Your task to perform on an android device: Open notification settings Image 0: 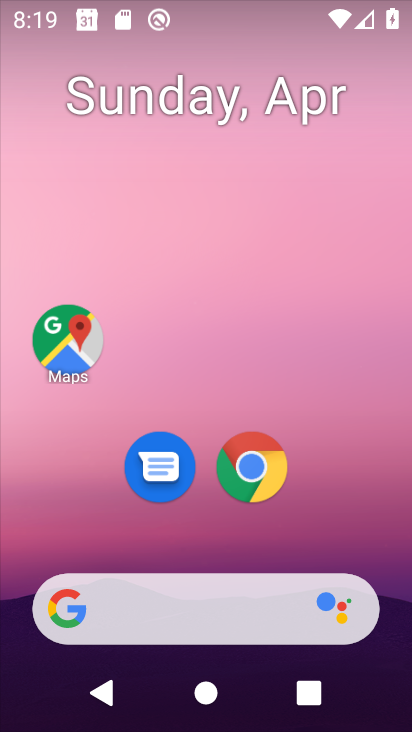
Step 0: drag from (329, 527) to (405, 209)
Your task to perform on an android device: Open notification settings Image 1: 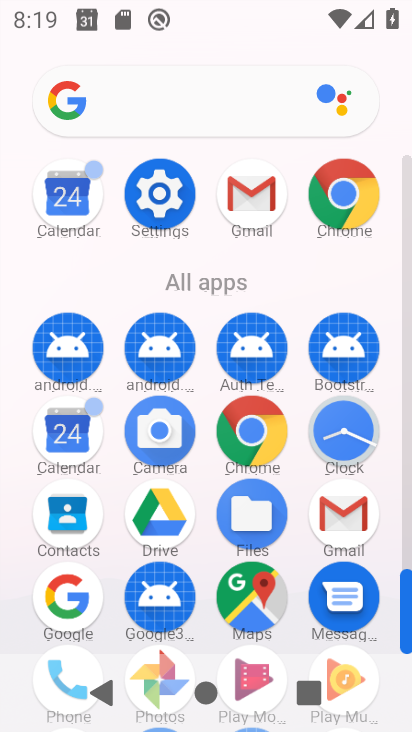
Step 1: click (167, 194)
Your task to perform on an android device: Open notification settings Image 2: 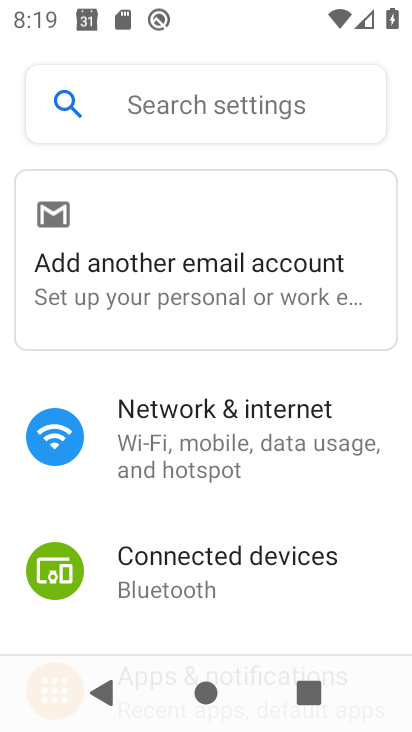
Step 2: drag from (194, 365) to (235, 265)
Your task to perform on an android device: Open notification settings Image 3: 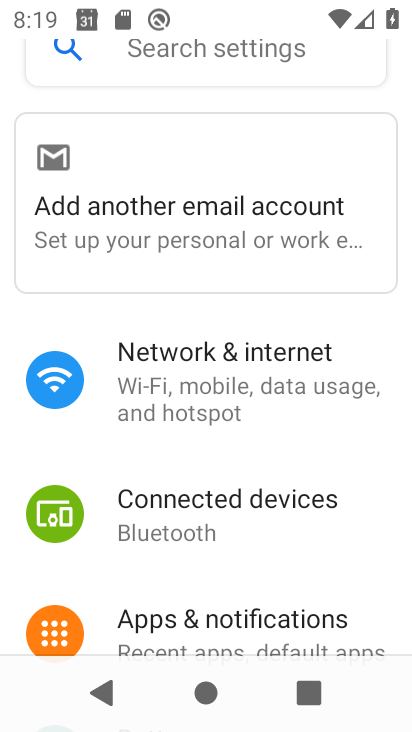
Step 3: drag from (255, 327) to (333, 176)
Your task to perform on an android device: Open notification settings Image 4: 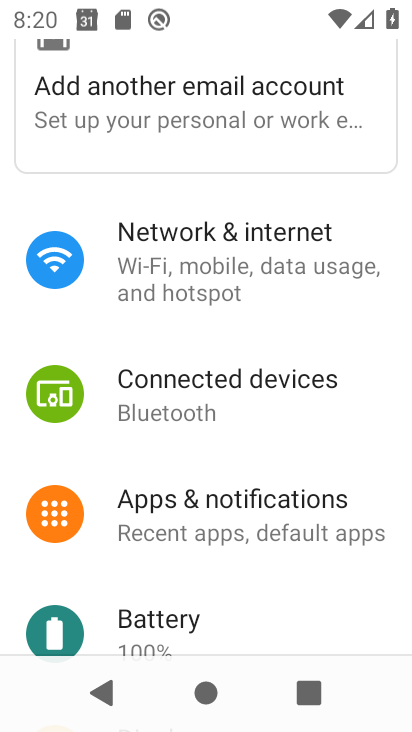
Step 4: click (244, 500)
Your task to perform on an android device: Open notification settings Image 5: 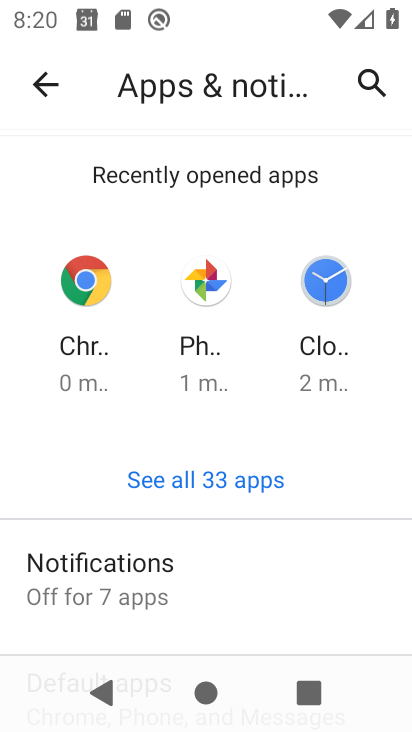
Step 5: click (265, 579)
Your task to perform on an android device: Open notification settings Image 6: 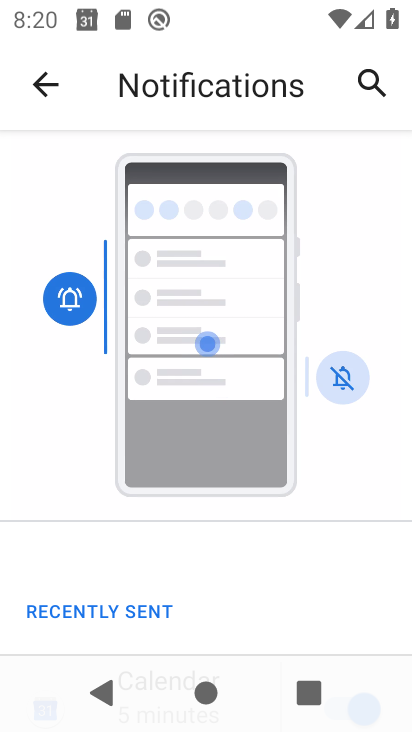
Step 6: task complete